Your task to perform on an android device: Turn off the flashlight Image 0: 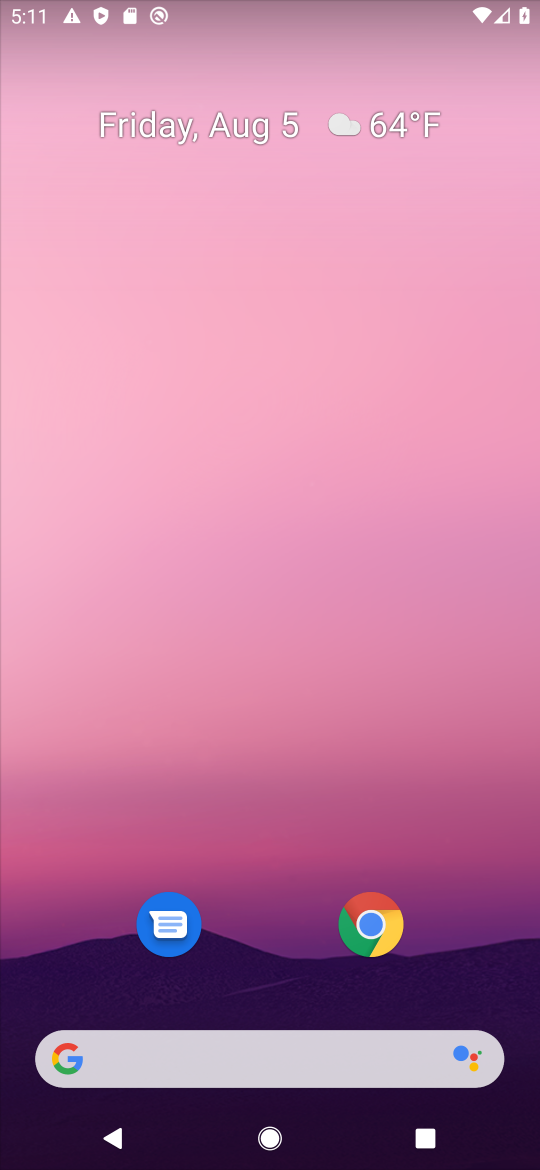
Step 0: drag from (436, 462) to (453, 710)
Your task to perform on an android device: Turn off the flashlight Image 1: 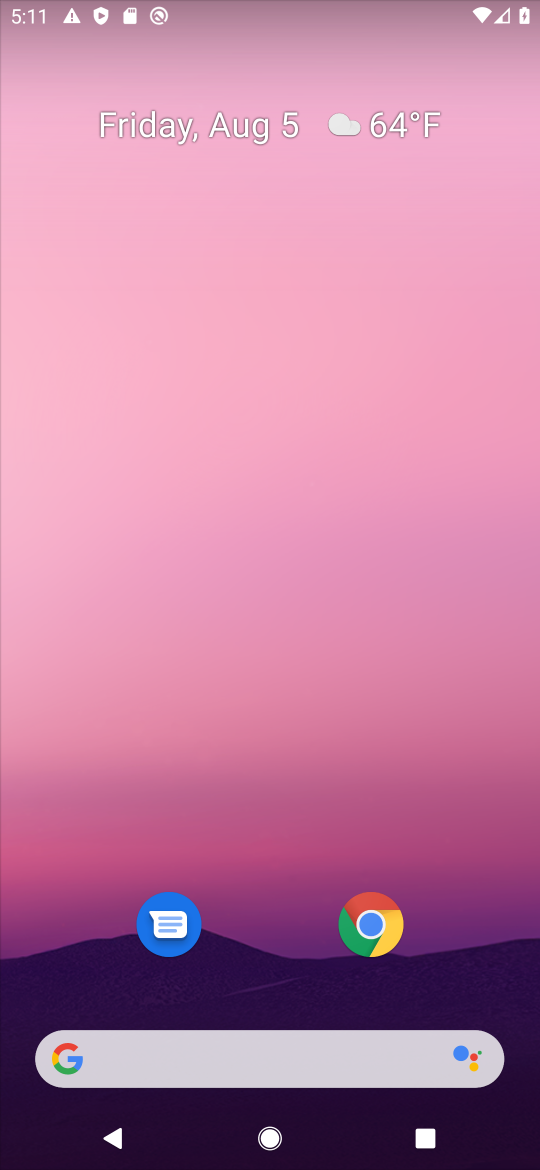
Step 1: task complete